Your task to perform on an android device: change notifications settings Image 0: 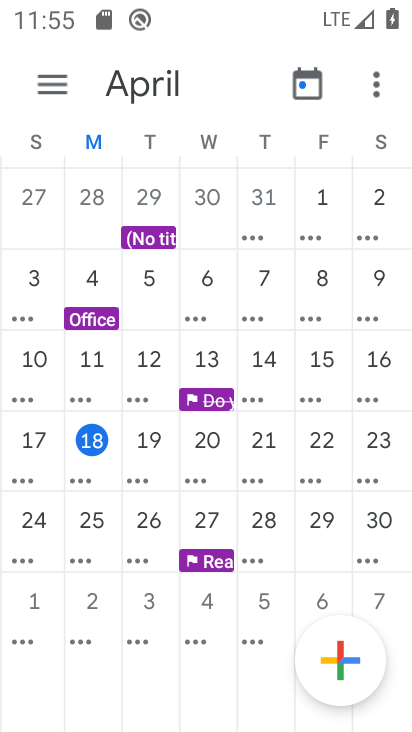
Step 0: press home button
Your task to perform on an android device: change notifications settings Image 1: 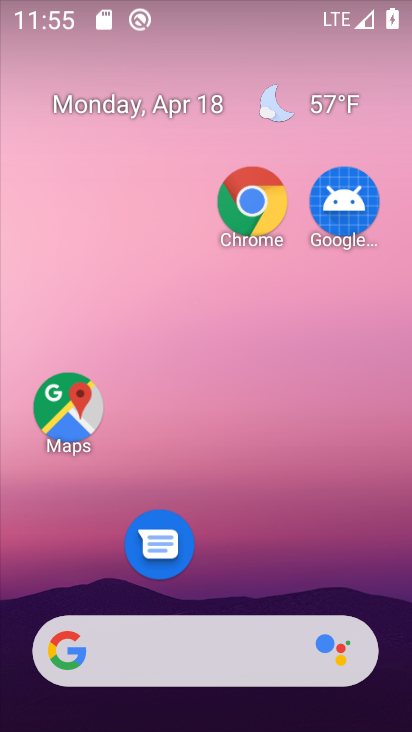
Step 1: drag from (211, 688) to (235, 341)
Your task to perform on an android device: change notifications settings Image 2: 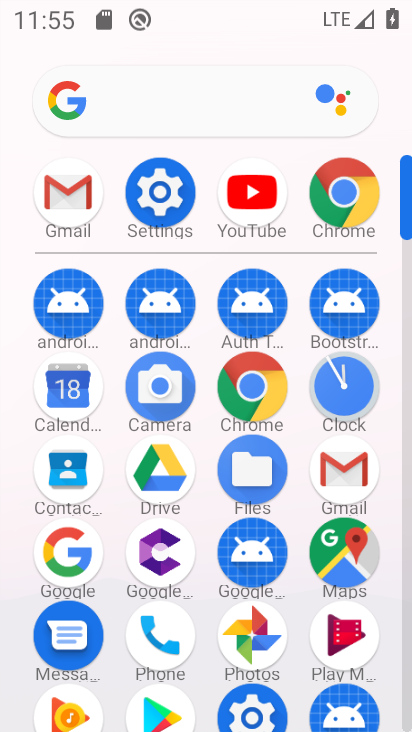
Step 2: click (149, 189)
Your task to perform on an android device: change notifications settings Image 3: 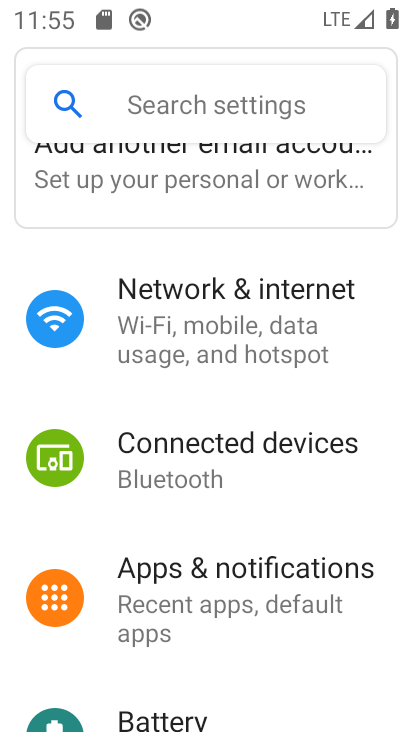
Step 3: click (223, 584)
Your task to perform on an android device: change notifications settings Image 4: 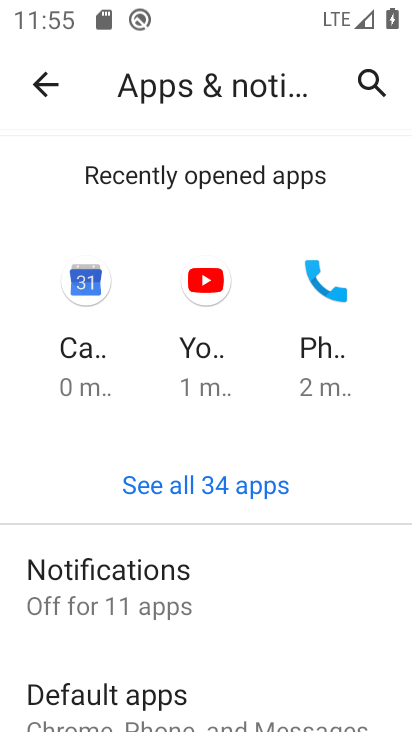
Step 4: click (182, 586)
Your task to perform on an android device: change notifications settings Image 5: 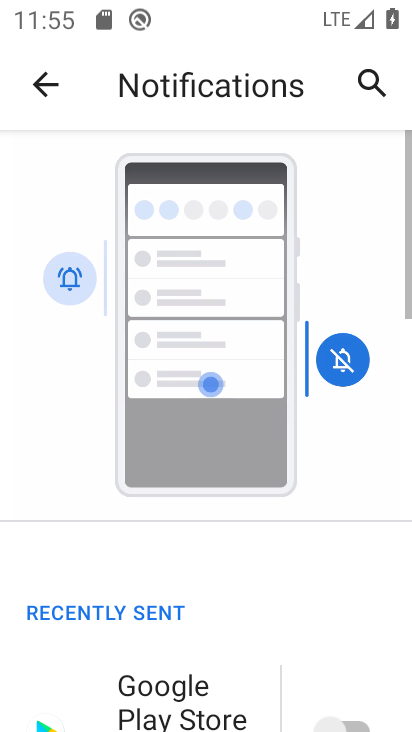
Step 5: drag from (175, 592) to (239, 90)
Your task to perform on an android device: change notifications settings Image 6: 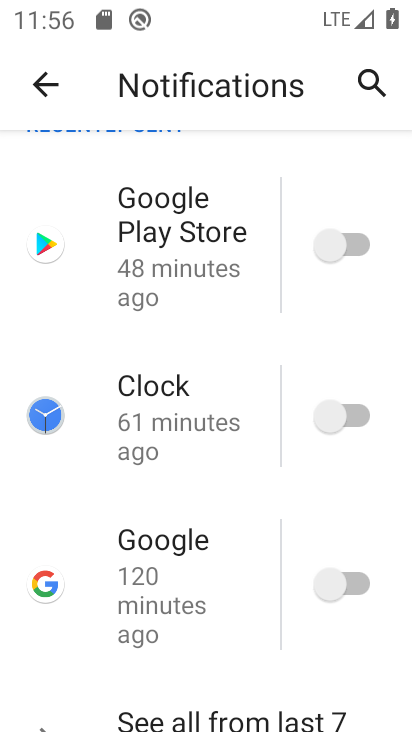
Step 6: click (327, 239)
Your task to perform on an android device: change notifications settings Image 7: 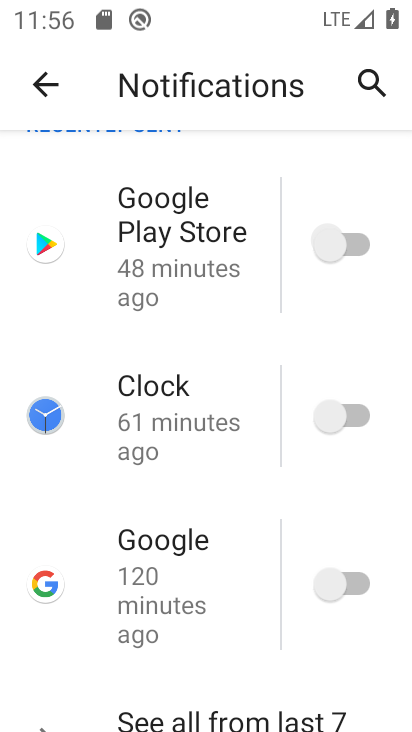
Step 7: click (327, 414)
Your task to perform on an android device: change notifications settings Image 8: 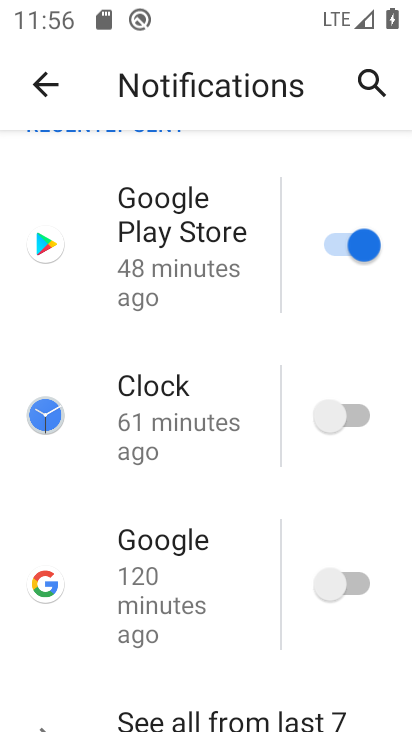
Step 8: drag from (348, 620) to (346, 586)
Your task to perform on an android device: change notifications settings Image 9: 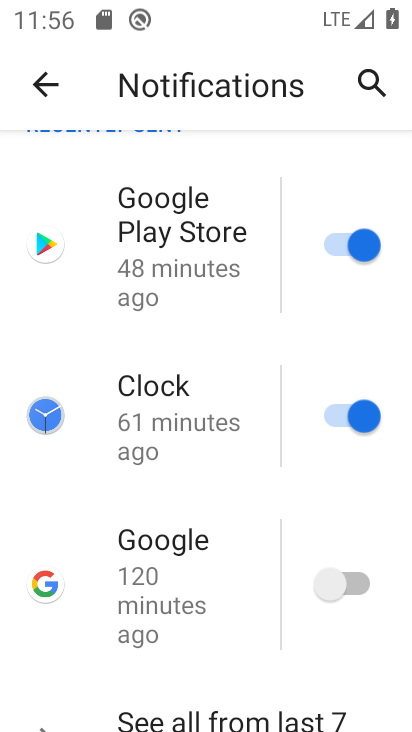
Step 9: drag from (200, 630) to (226, 292)
Your task to perform on an android device: change notifications settings Image 10: 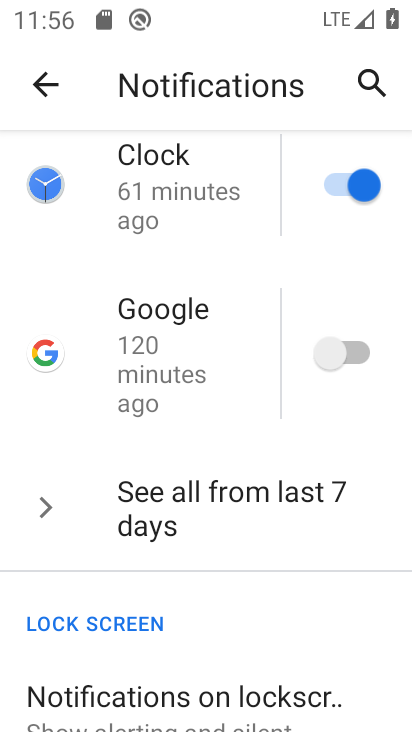
Step 10: click (236, 495)
Your task to perform on an android device: change notifications settings Image 11: 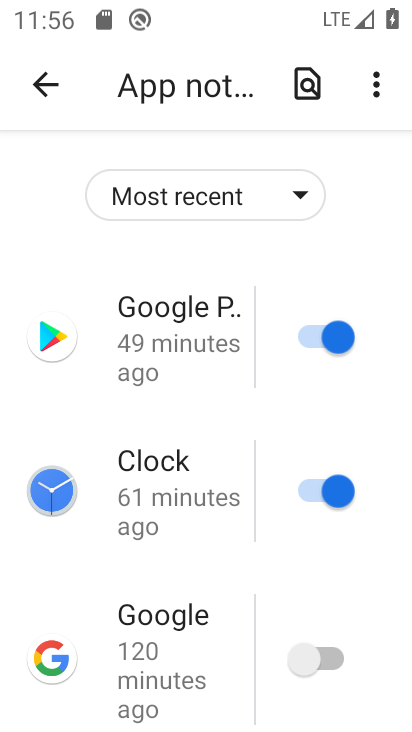
Step 11: drag from (185, 578) to (204, 263)
Your task to perform on an android device: change notifications settings Image 12: 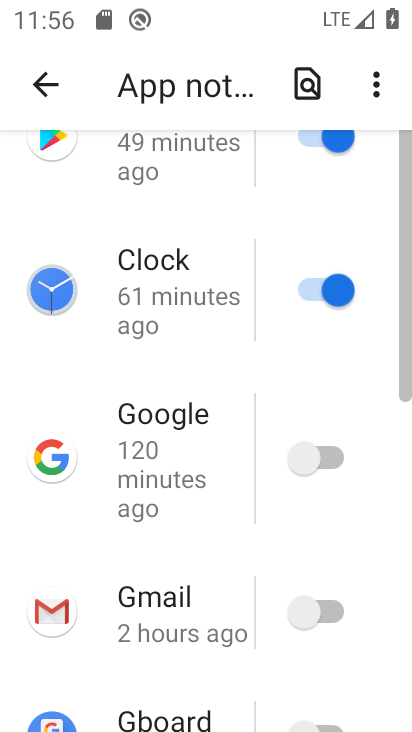
Step 12: click (306, 441)
Your task to perform on an android device: change notifications settings Image 13: 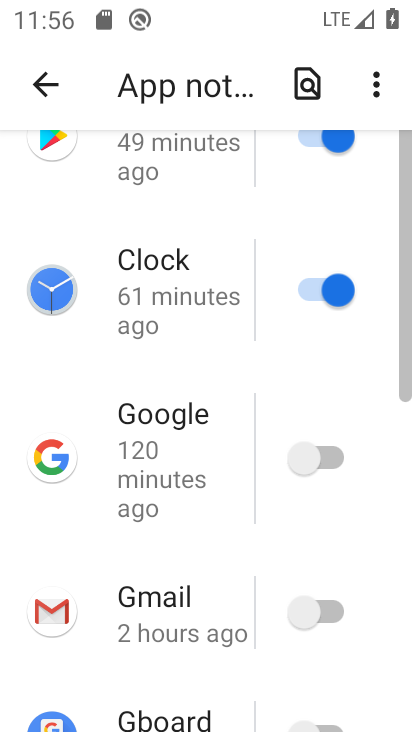
Step 13: drag from (310, 578) to (315, 617)
Your task to perform on an android device: change notifications settings Image 14: 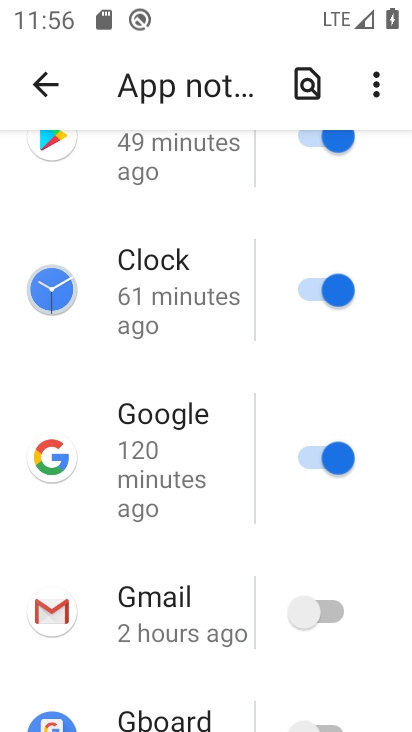
Step 14: drag from (201, 629) to (249, 166)
Your task to perform on an android device: change notifications settings Image 15: 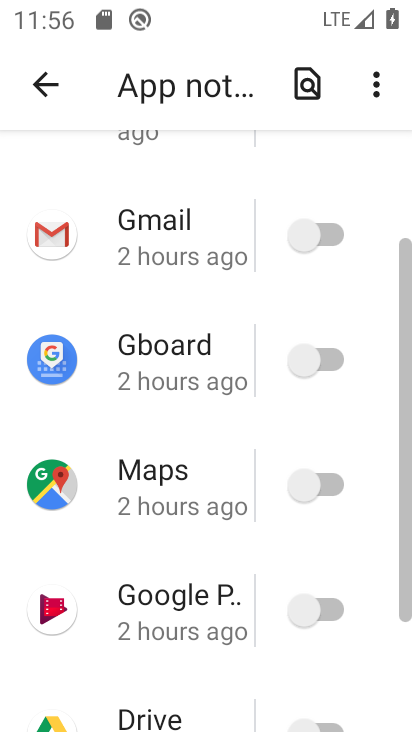
Step 15: click (302, 227)
Your task to perform on an android device: change notifications settings Image 16: 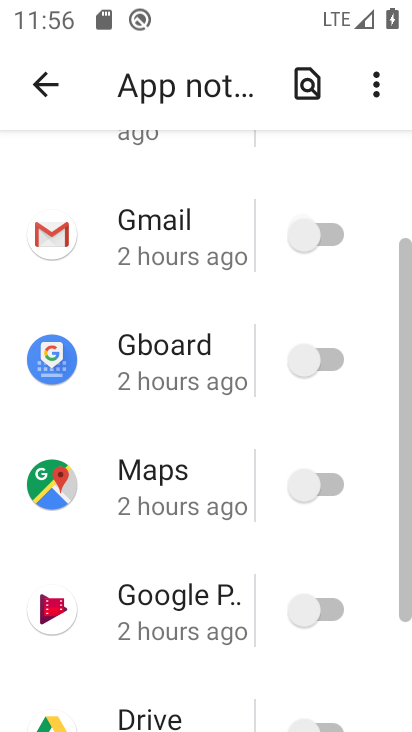
Step 16: click (299, 349)
Your task to perform on an android device: change notifications settings Image 17: 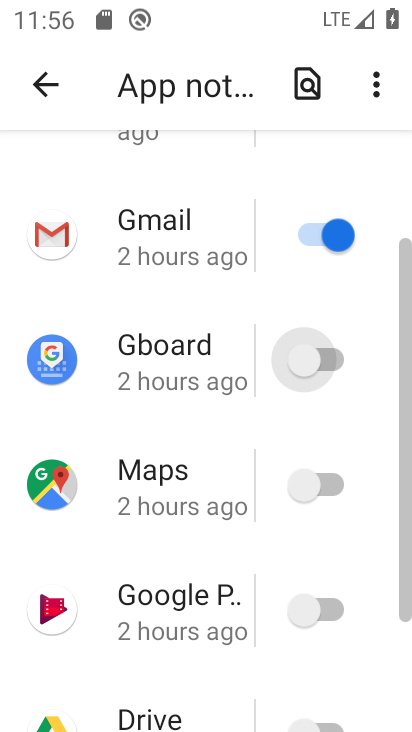
Step 17: click (326, 483)
Your task to perform on an android device: change notifications settings Image 18: 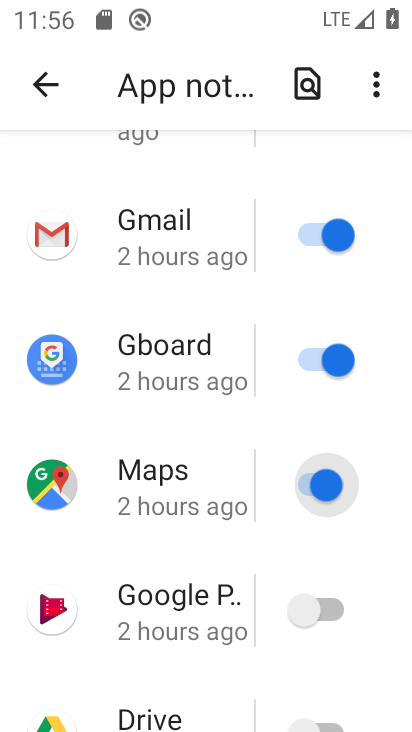
Step 18: click (315, 619)
Your task to perform on an android device: change notifications settings Image 19: 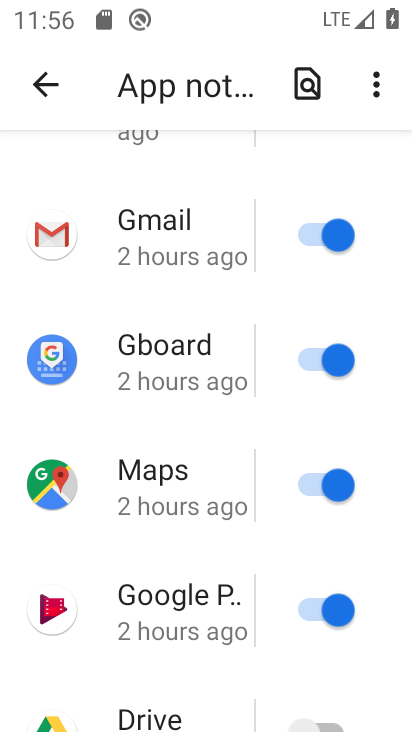
Step 19: drag from (255, 589) to (235, 217)
Your task to perform on an android device: change notifications settings Image 20: 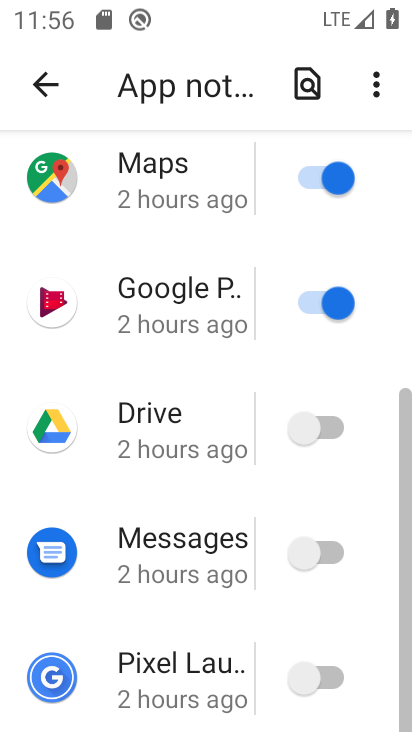
Step 20: click (339, 433)
Your task to perform on an android device: change notifications settings Image 21: 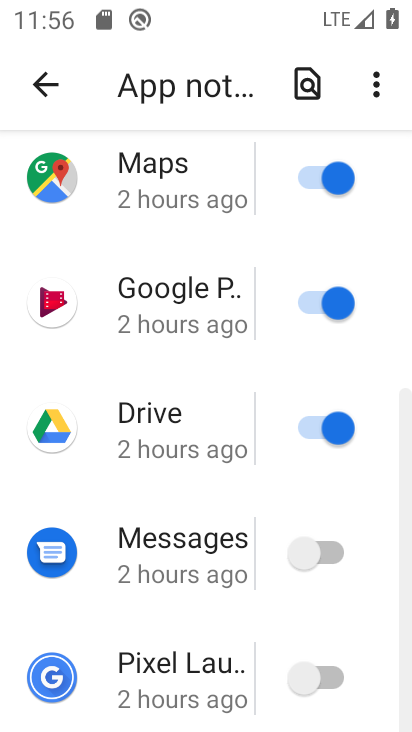
Step 21: click (318, 551)
Your task to perform on an android device: change notifications settings Image 22: 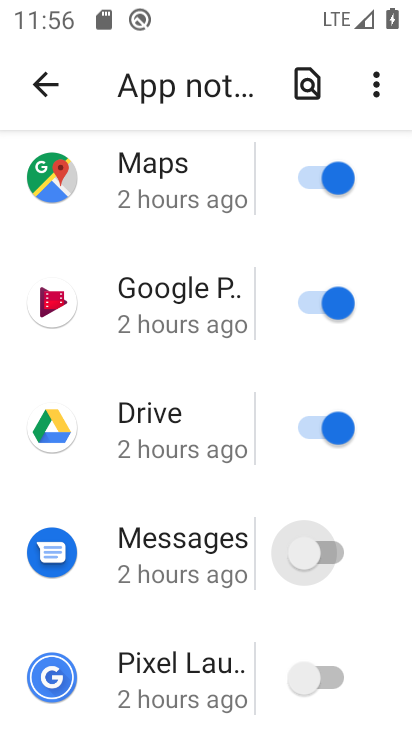
Step 22: click (324, 671)
Your task to perform on an android device: change notifications settings Image 23: 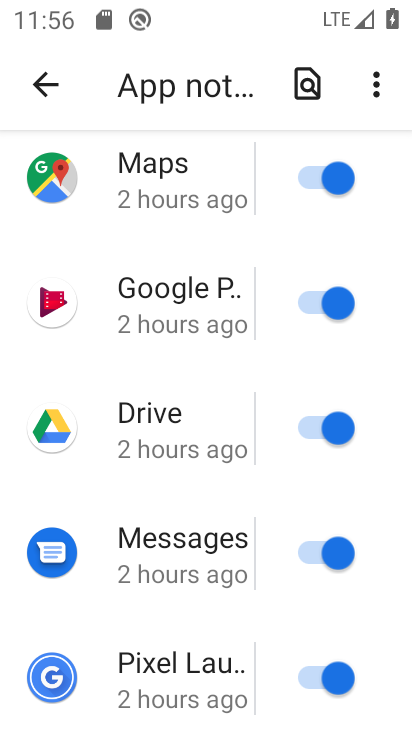
Step 23: task complete